Your task to perform on an android device: see creations saved in the google photos Image 0: 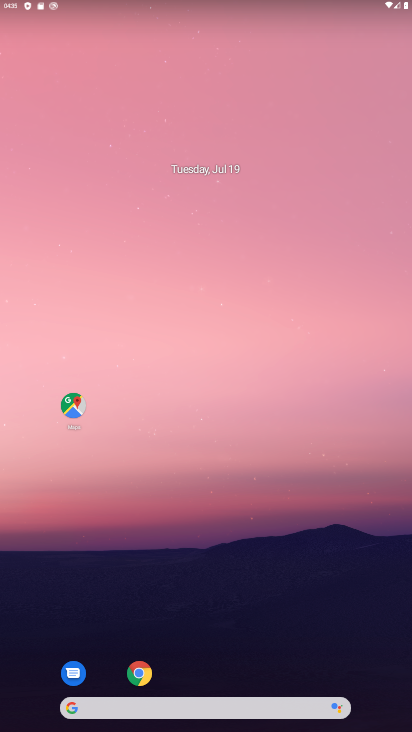
Step 0: drag from (240, 660) to (264, 2)
Your task to perform on an android device: see creations saved in the google photos Image 1: 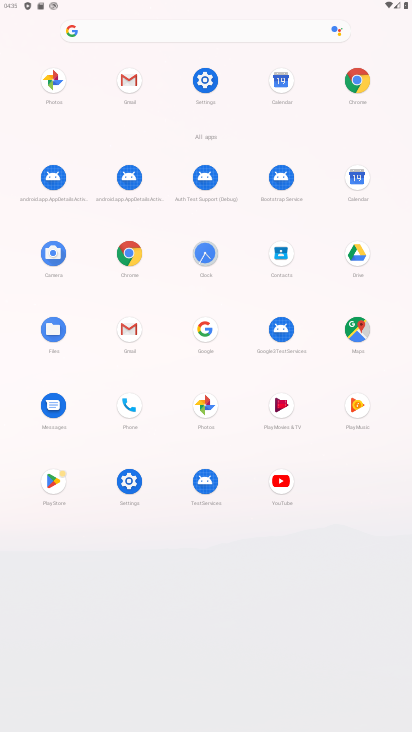
Step 1: click (204, 401)
Your task to perform on an android device: see creations saved in the google photos Image 2: 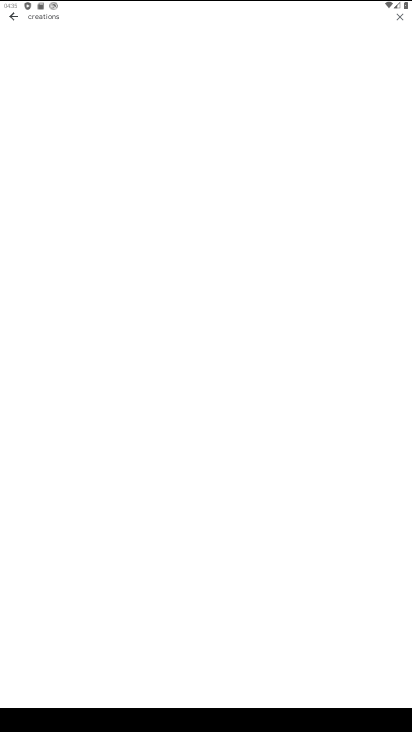
Step 2: task complete